Your task to perform on an android device: Open Yahoo.com Image 0: 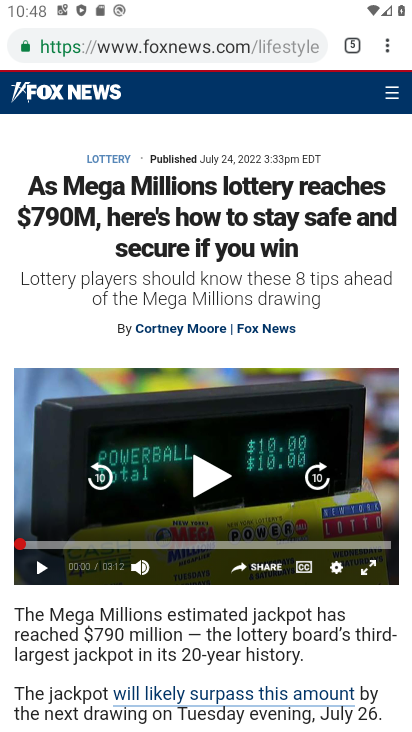
Step 0: click (348, 40)
Your task to perform on an android device: Open Yahoo.com Image 1: 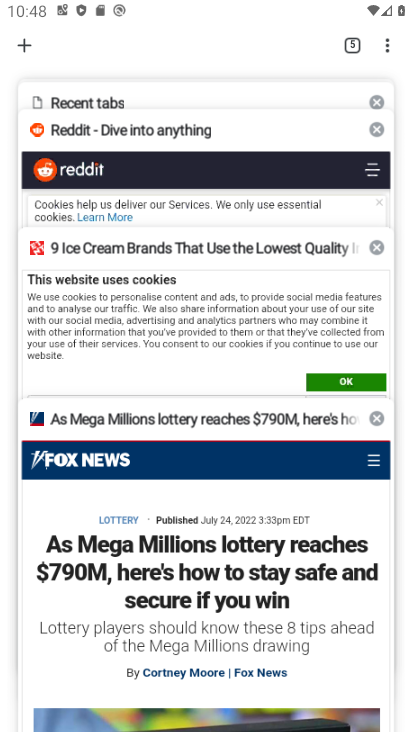
Step 1: click (18, 47)
Your task to perform on an android device: Open Yahoo.com Image 2: 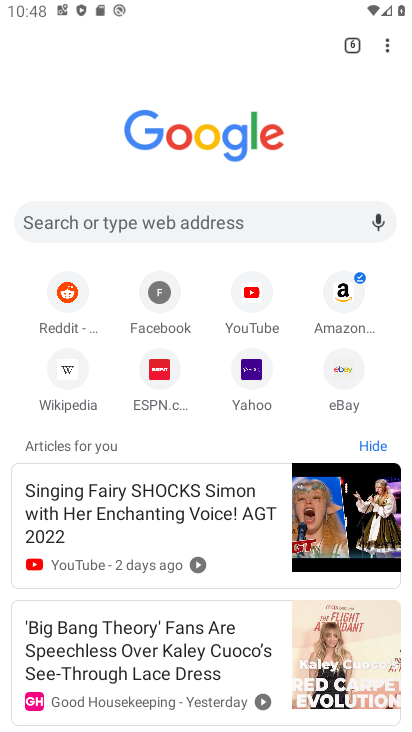
Step 2: click (243, 396)
Your task to perform on an android device: Open Yahoo.com Image 3: 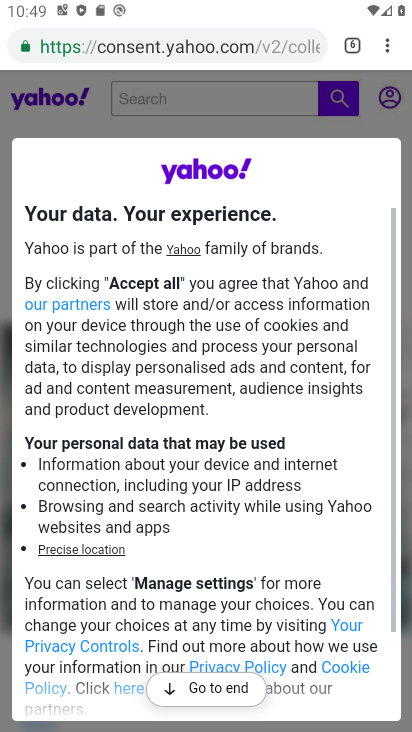
Step 3: task complete